Your task to perform on an android device: turn on wifi Image 0: 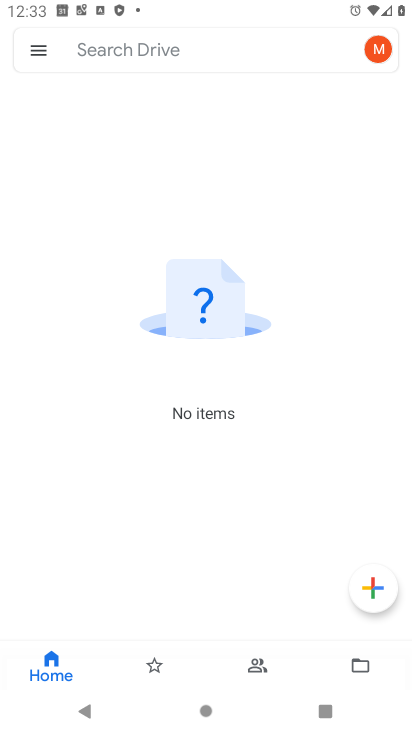
Step 0: press home button
Your task to perform on an android device: turn on wifi Image 1: 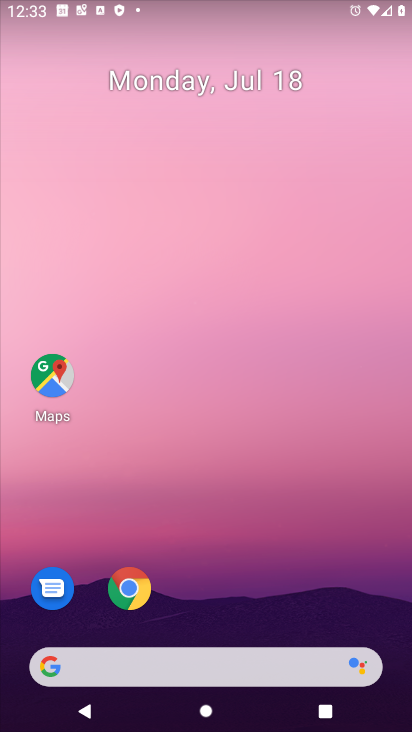
Step 1: drag from (225, 607) to (206, 160)
Your task to perform on an android device: turn on wifi Image 2: 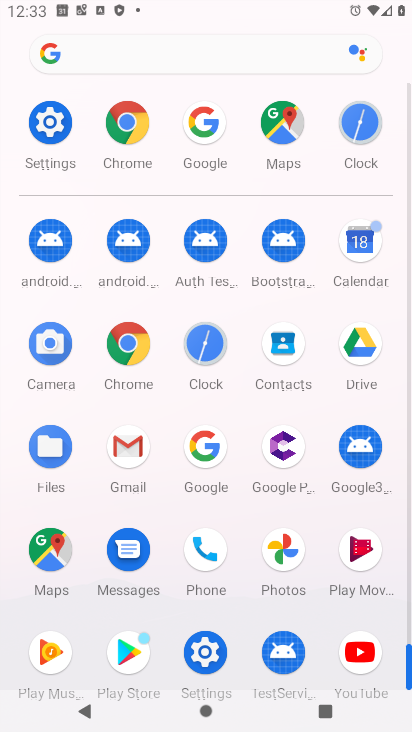
Step 2: click (63, 140)
Your task to perform on an android device: turn on wifi Image 3: 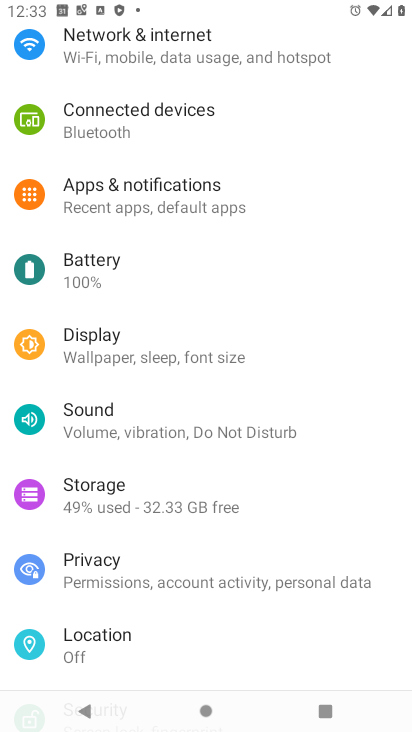
Step 3: drag from (221, 243) to (204, 666)
Your task to perform on an android device: turn on wifi Image 4: 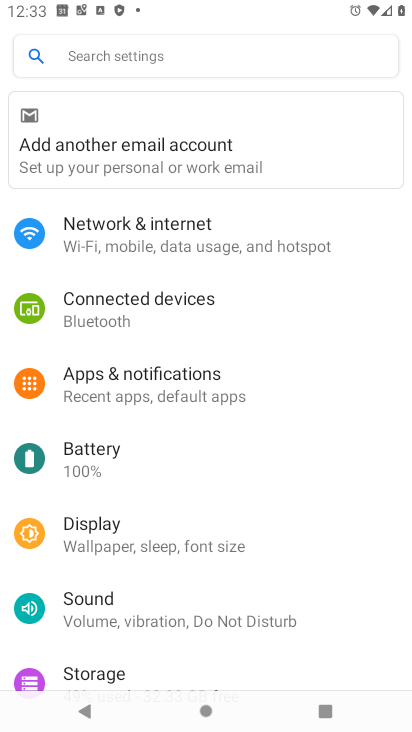
Step 4: click (184, 239)
Your task to perform on an android device: turn on wifi Image 5: 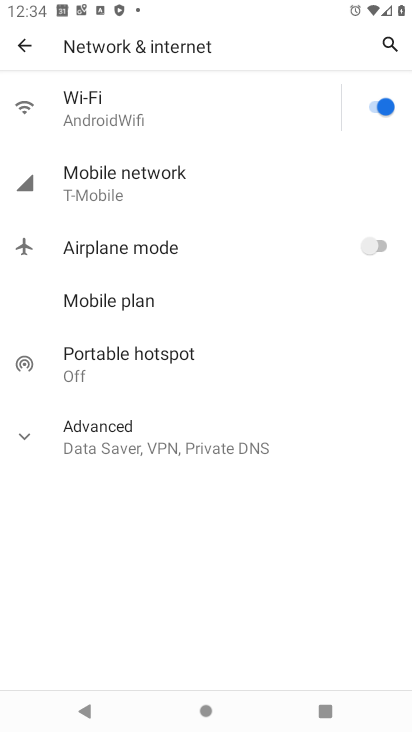
Step 5: task complete